Your task to perform on an android device: Open Amazon Image 0: 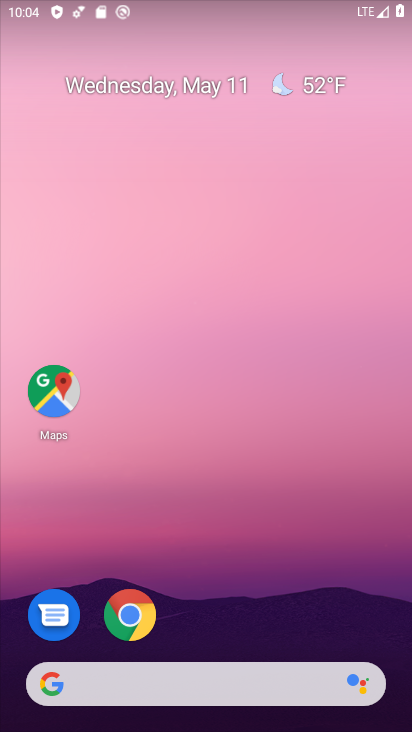
Step 0: click (130, 612)
Your task to perform on an android device: Open Amazon Image 1: 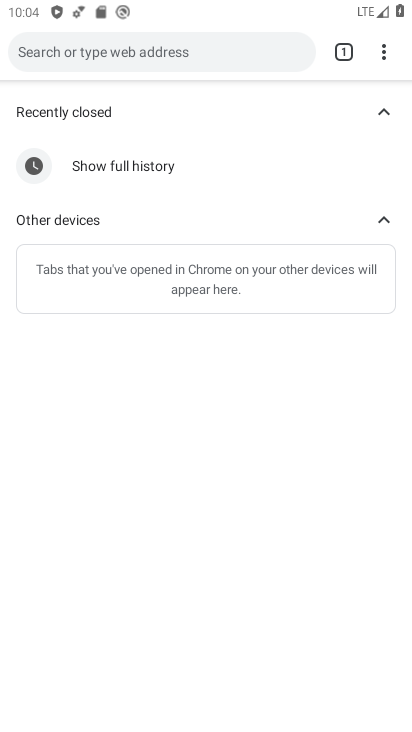
Step 1: click (199, 56)
Your task to perform on an android device: Open Amazon Image 2: 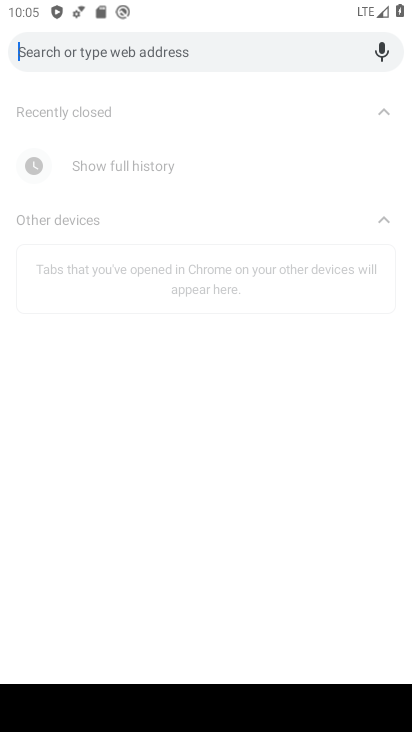
Step 2: click (199, 55)
Your task to perform on an android device: Open Amazon Image 3: 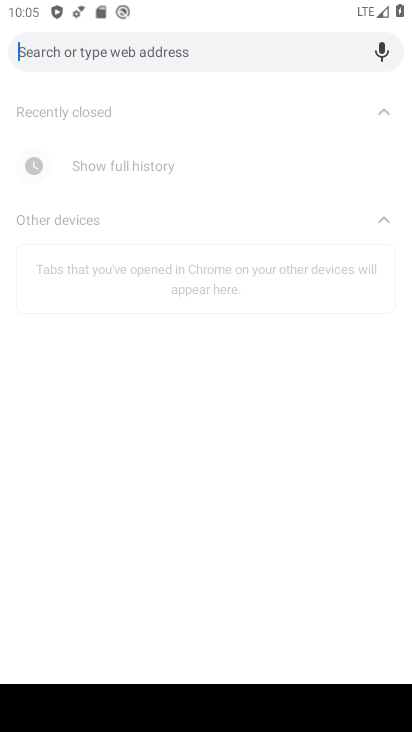
Step 3: type "Amazon"
Your task to perform on an android device: Open Amazon Image 4: 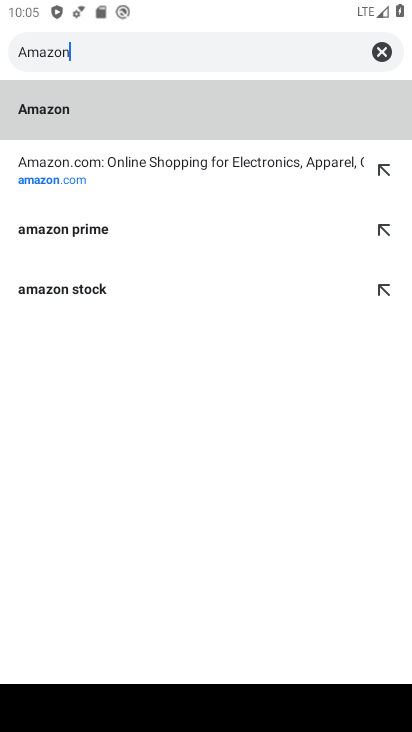
Step 4: click (61, 104)
Your task to perform on an android device: Open Amazon Image 5: 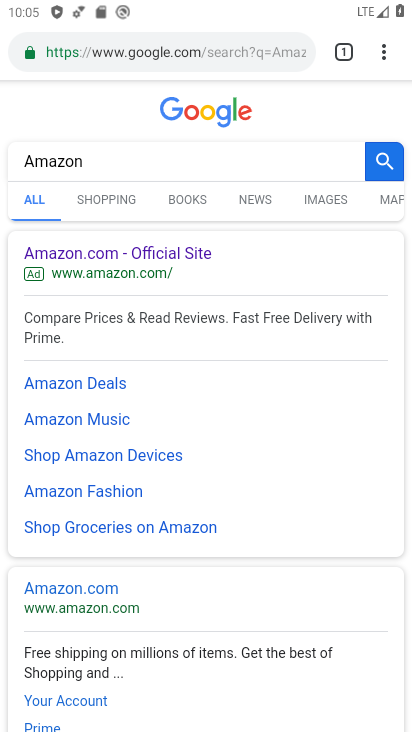
Step 5: click (100, 255)
Your task to perform on an android device: Open Amazon Image 6: 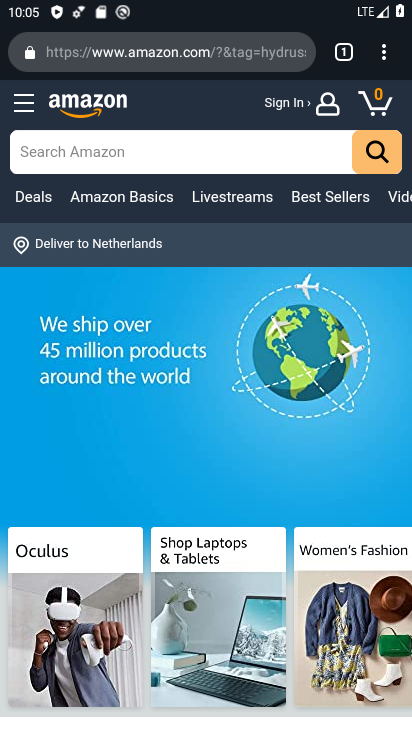
Step 6: task complete